Your task to perform on an android device: Find coffee shops on Maps Image 0: 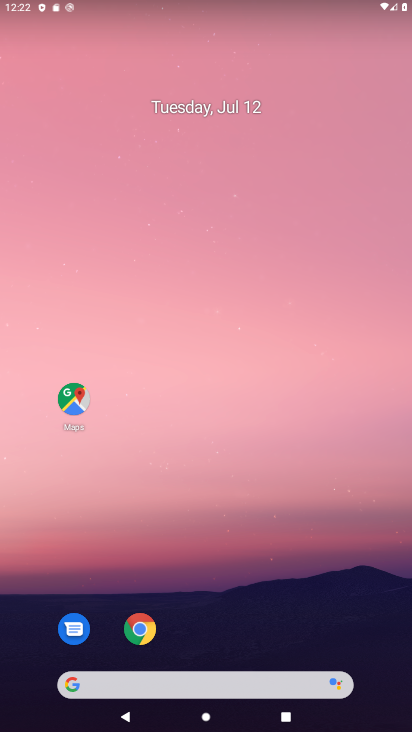
Step 0: drag from (341, 561) to (106, 9)
Your task to perform on an android device: Find coffee shops on Maps Image 1: 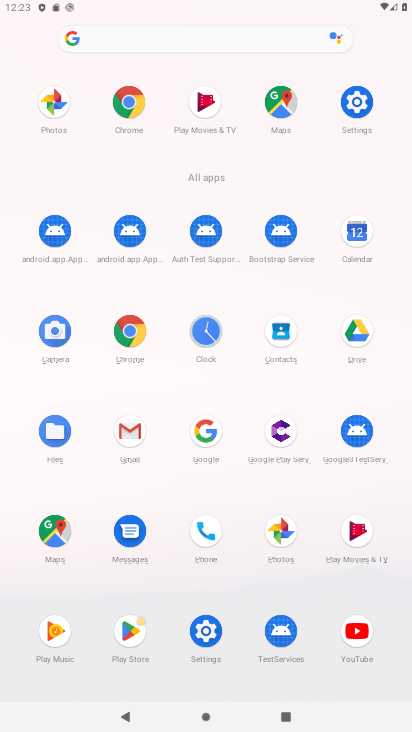
Step 1: click (76, 536)
Your task to perform on an android device: Find coffee shops on Maps Image 2: 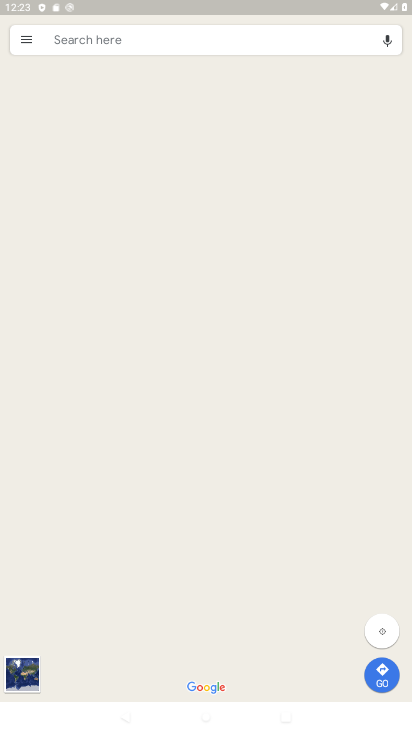
Step 2: click (176, 36)
Your task to perform on an android device: Find coffee shops on Maps Image 3: 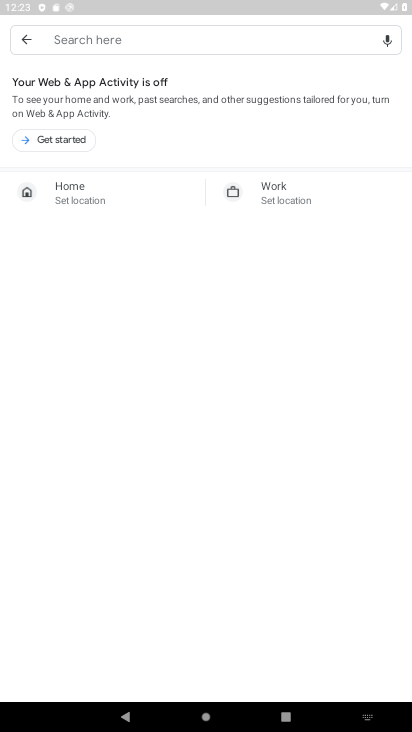
Step 3: type "coffee shops "
Your task to perform on an android device: Find coffee shops on Maps Image 4: 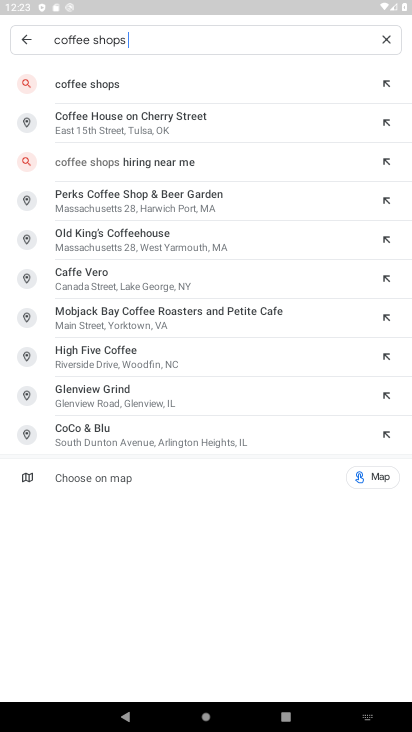
Step 4: click (229, 89)
Your task to perform on an android device: Find coffee shops on Maps Image 5: 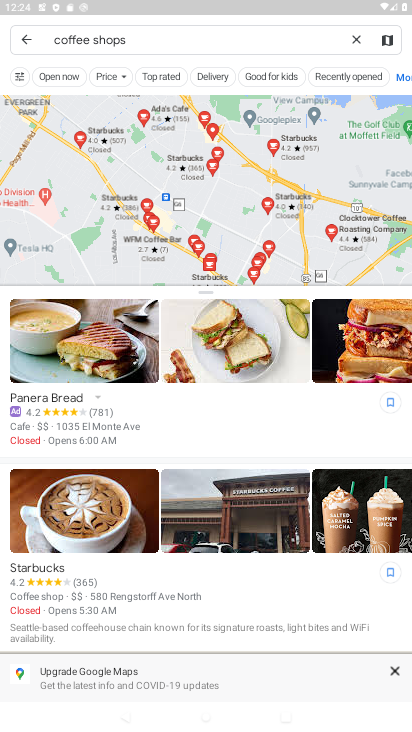
Step 5: task complete